Your task to perform on an android device: Go to Yahoo.com Image 0: 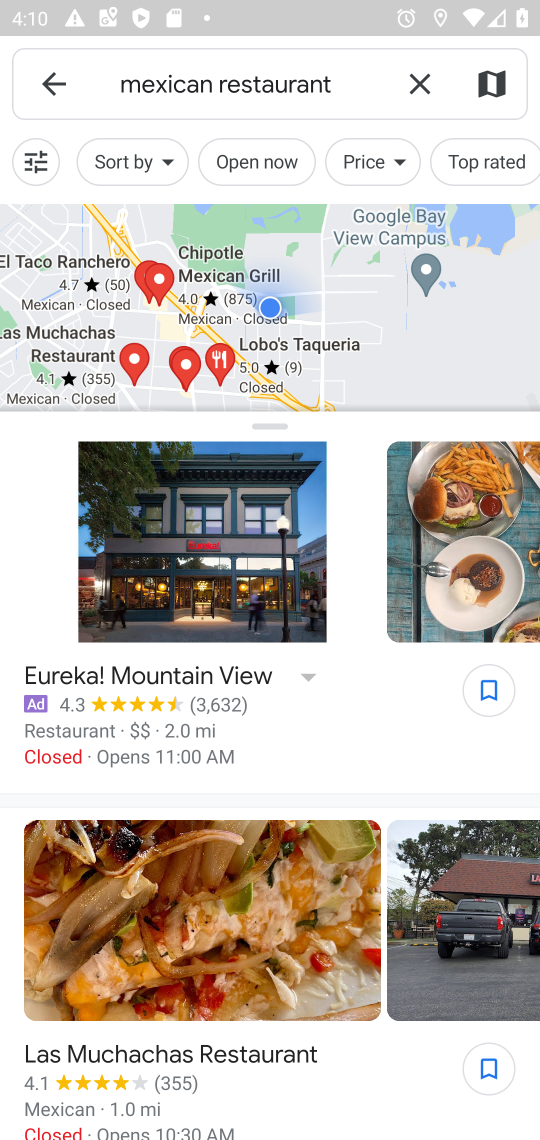
Step 0: press home button
Your task to perform on an android device: Go to Yahoo.com Image 1: 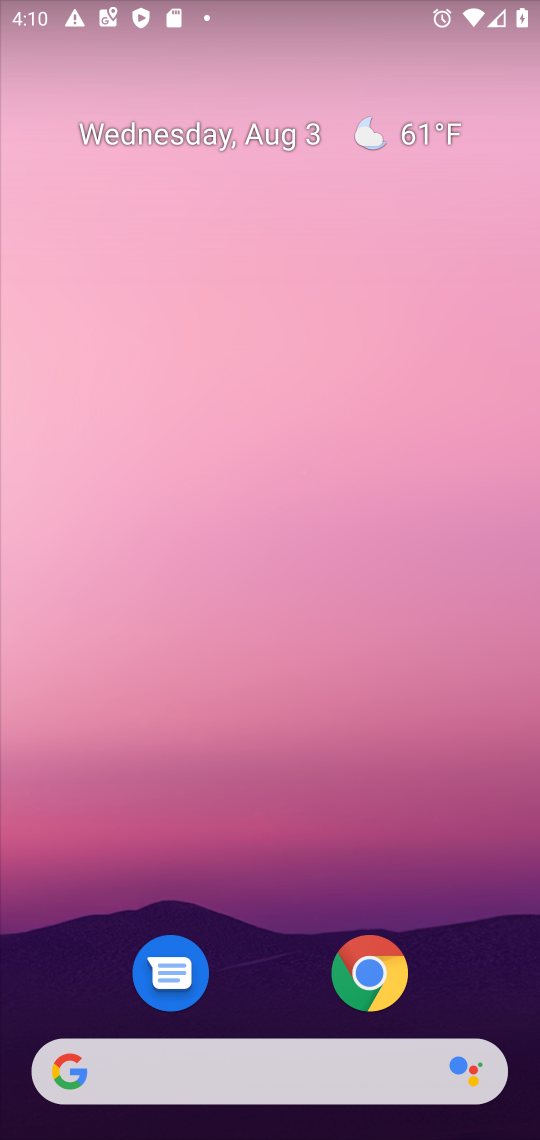
Step 1: click (350, 1071)
Your task to perform on an android device: Go to Yahoo.com Image 2: 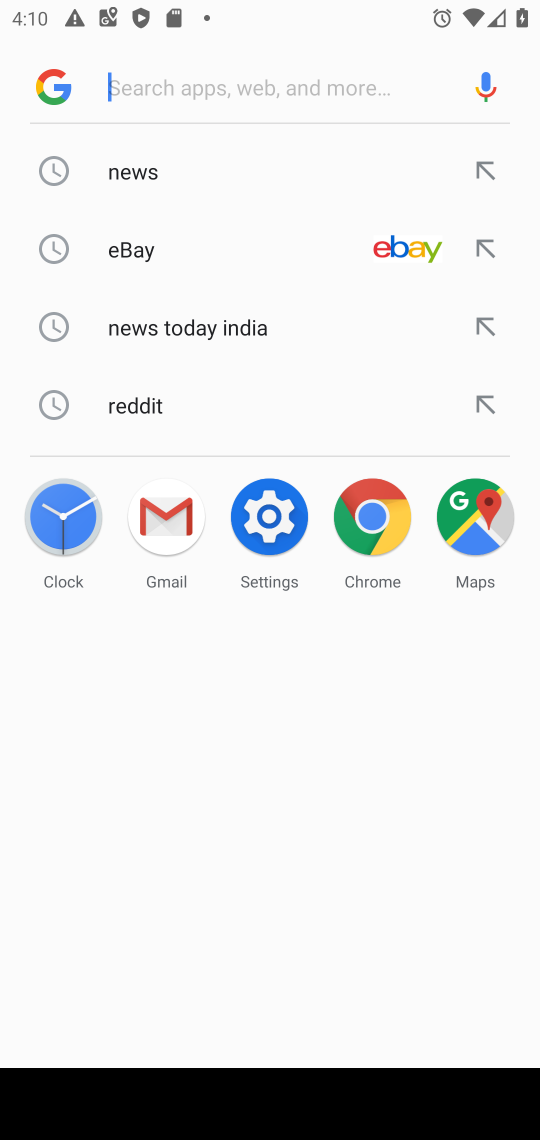
Step 2: type "yahooo.com"
Your task to perform on an android device: Go to Yahoo.com Image 3: 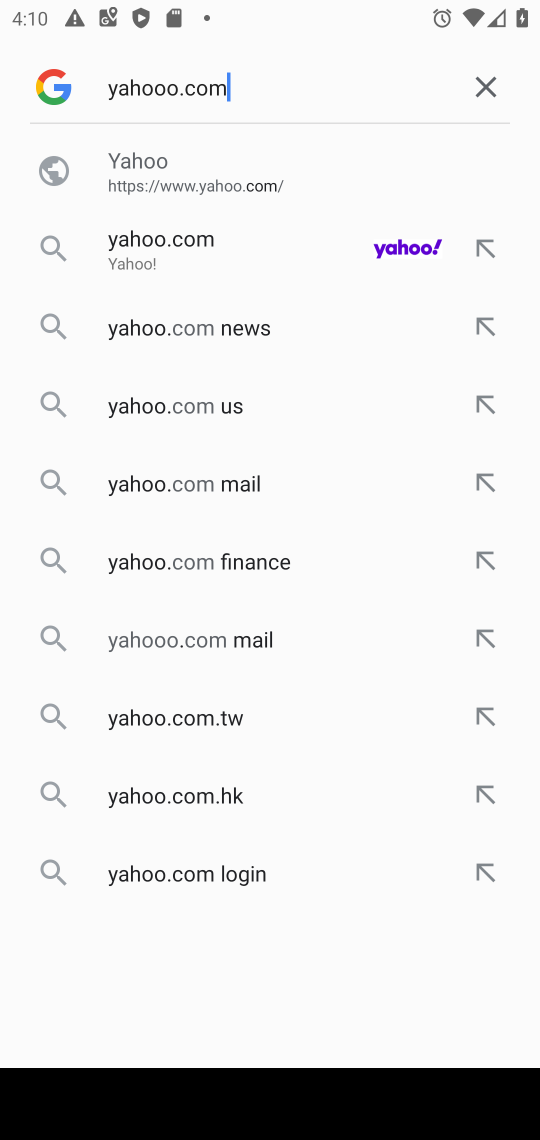
Step 3: click (316, 239)
Your task to perform on an android device: Go to Yahoo.com Image 4: 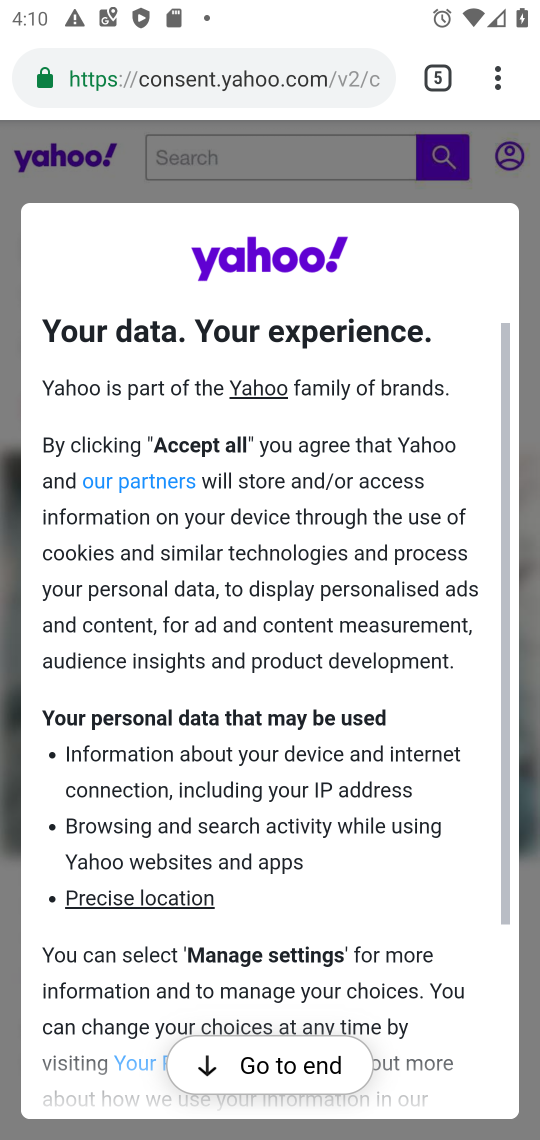
Step 4: click (292, 1067)
Your task to perform on an android device: Go to Yahoo.com Image 5: 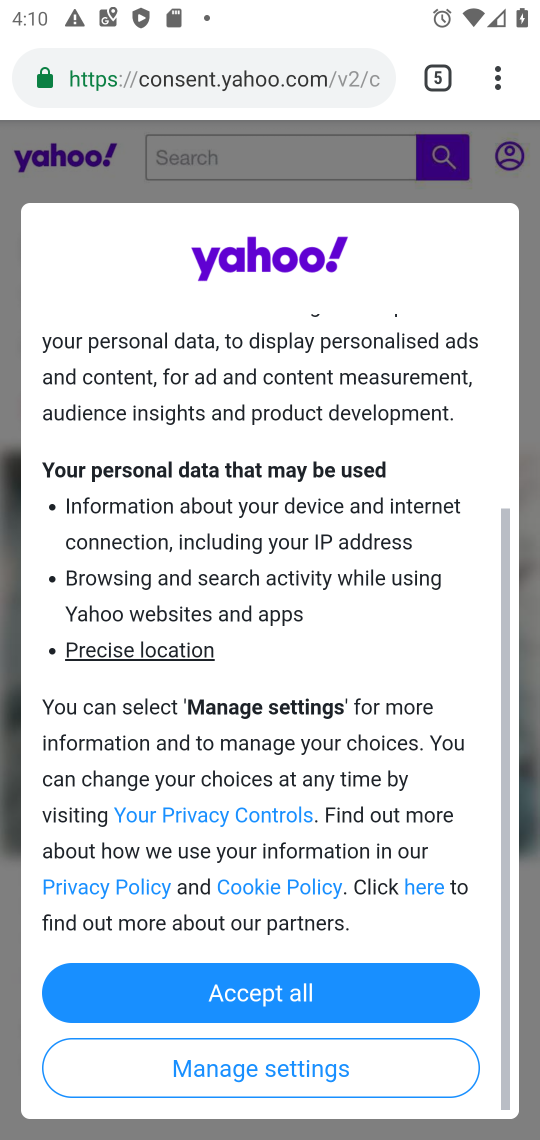
Step 5: click (314, 998)
Your task to perform on an android device: Go to Yahoo.com Image 6: 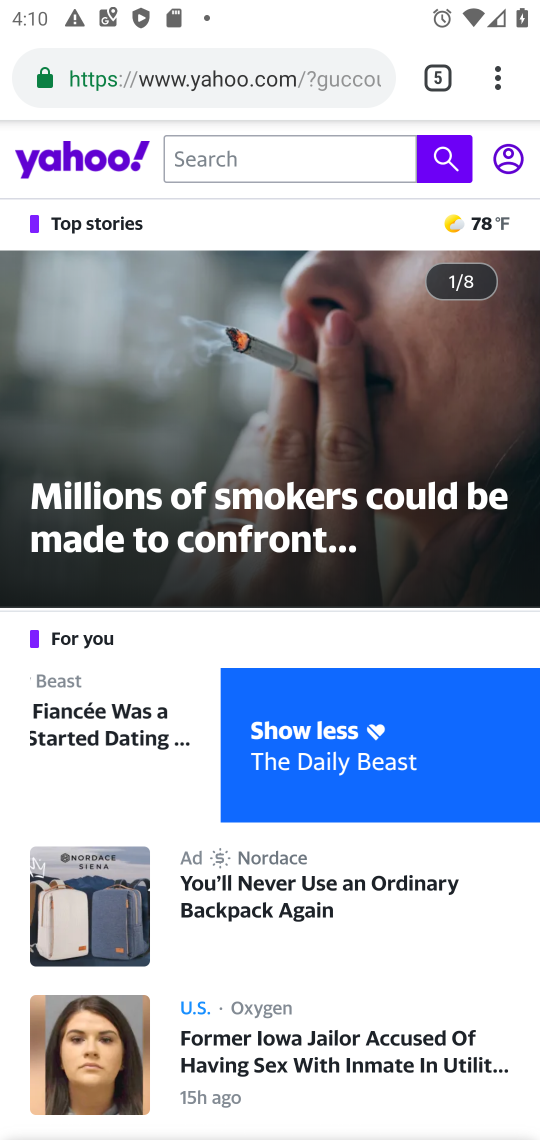
Step 6: task complete